Your task to perform on an android device: toggle notifications settings in the gmail app Image 0: 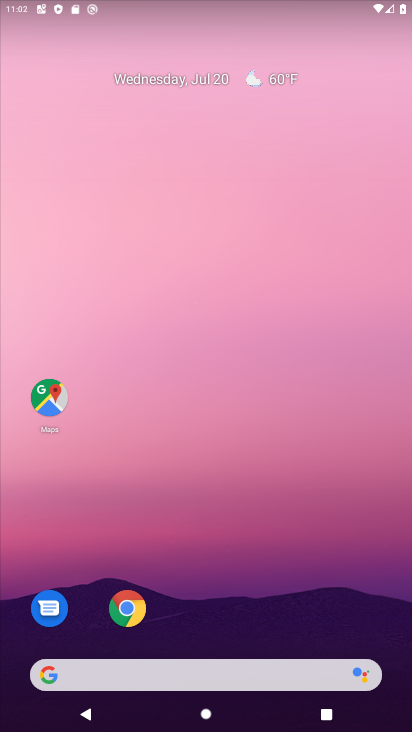
Step 0: click (284, 593)
Your task to perform on an android device: toggle notifications settings in the gmail app Image 1: 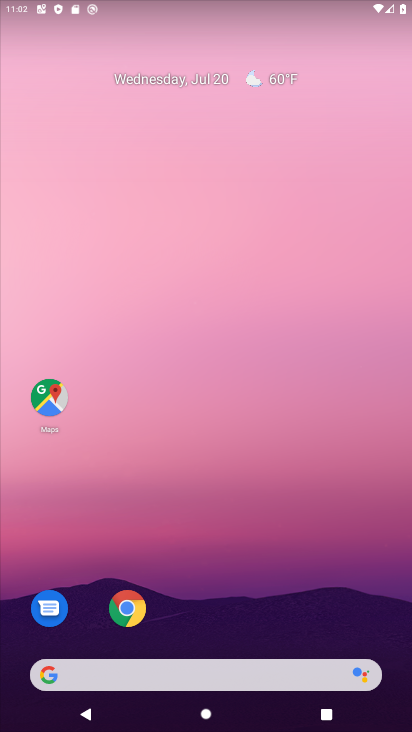
Step 1: drag from (284, 593) to (302, 76)
Your task to perform on an android device: toggle notifications settings in the gmail app Image 2: 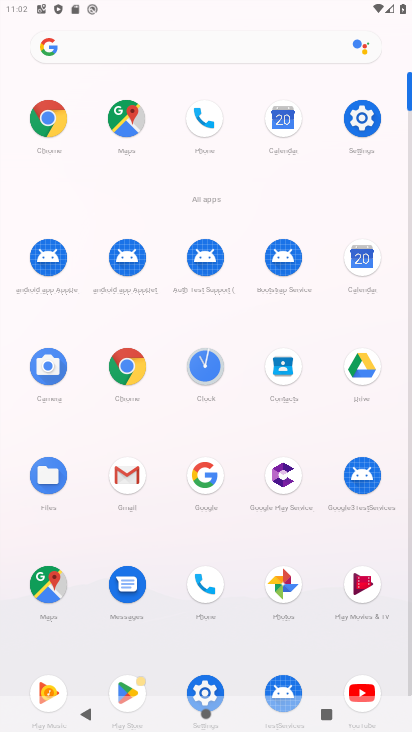
Step 2: click (123, 471)
Your task to perform on an android device: toggle notifications settings in the gmail app Image 3: 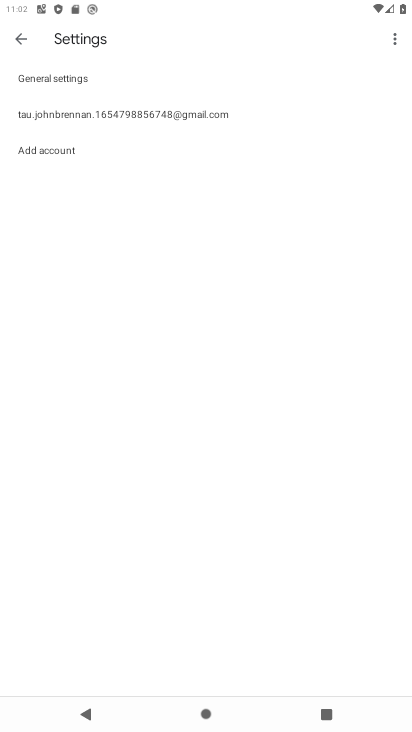
Step 3: click (249, 112)
Your task to perform on an android device: toggle notifications settings in the gmail app Image 4: 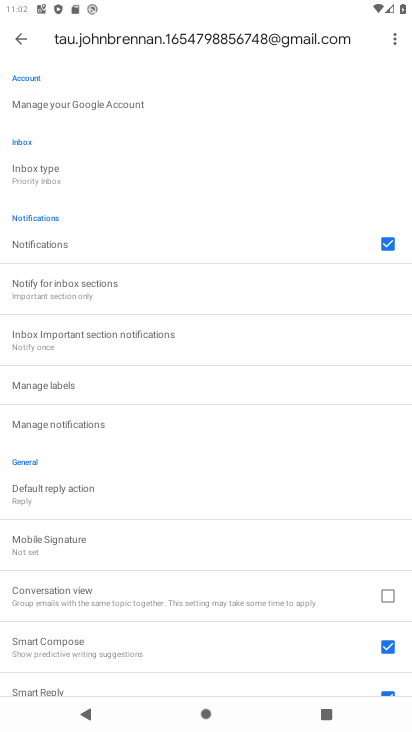
Step 4: click (84, 432)
Your task to perform on an android device: toggle notifications settings in the gmail app Image 5: 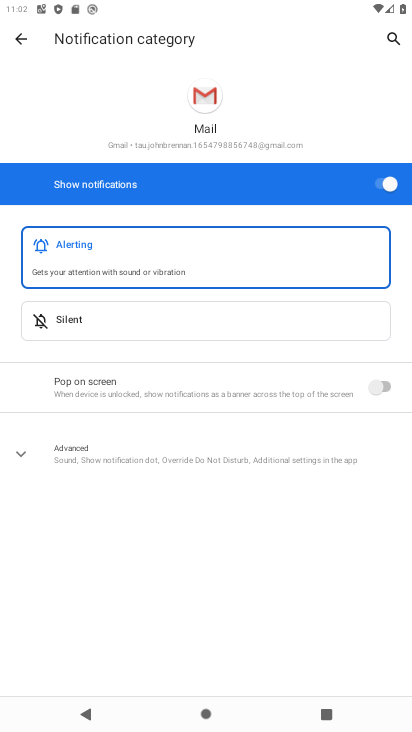
Step 5: click (387, 179)
Your task to perform on an android device: toggle notifications settings in the gmail app Image 6: 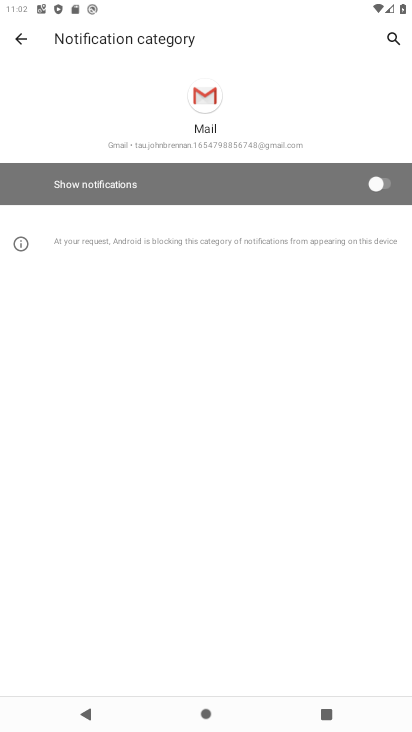
Step 6: task complete